Your task to perform on an android device: Open Google Maps and go to "Timeline" Image 0: 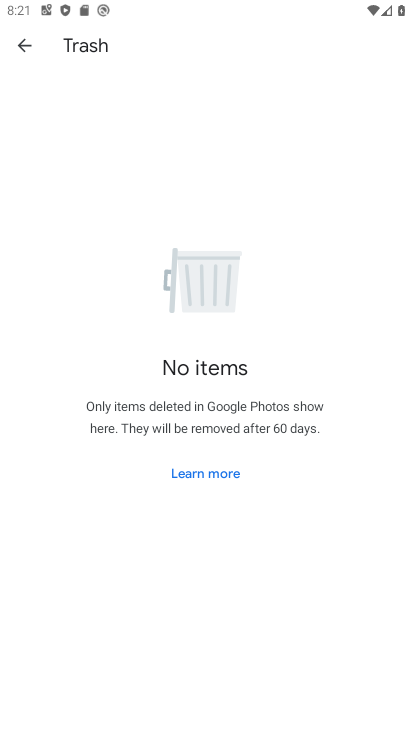
Step 0: press home button
Your task to perform on an android device: Open Google Maps and go to "Timeline" Image 1: 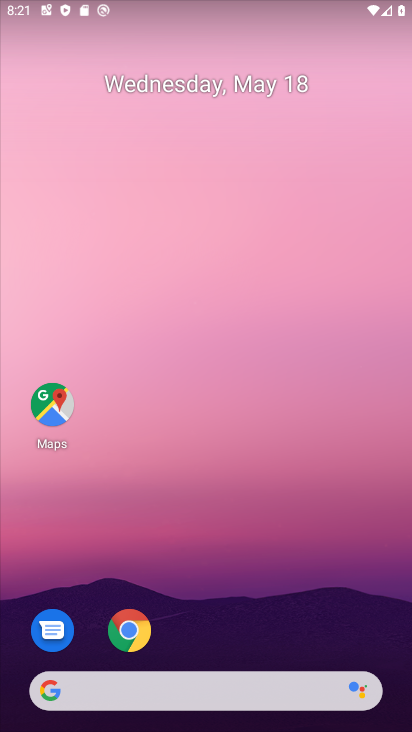
Step 1: click (53, 410)
Your task to perform on an android device: Open Google Maps and go to "Timeline" Image 2: 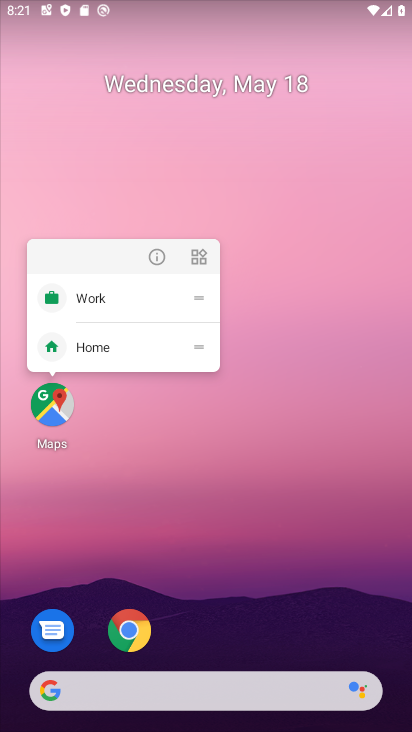
Step 2: click (50, 410)
Your task to perform on an android device: Open Google Maps and go to "Timeline" Image 3: 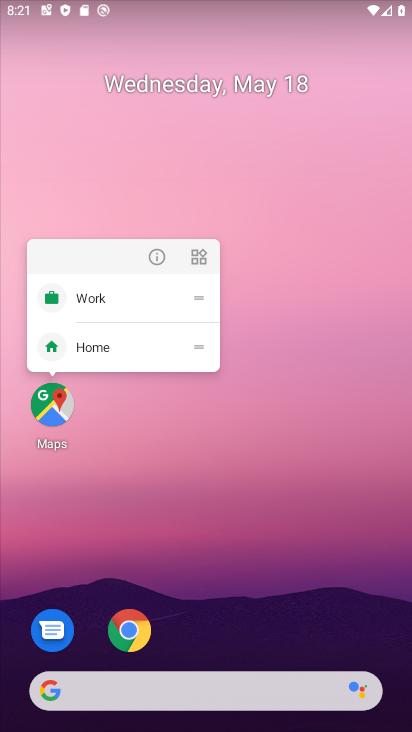
Step 3: click (50, 416)
Your task to perform on an android device: Open Google Maps and go to "Timeline" Image 4: 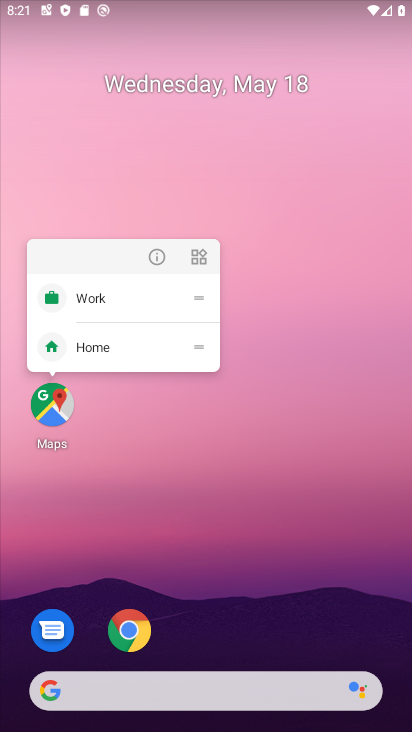
Step 4: click (48, 405)
Your task to perform on an android device: Open Google Maps and go to "Timeline" Image 5: 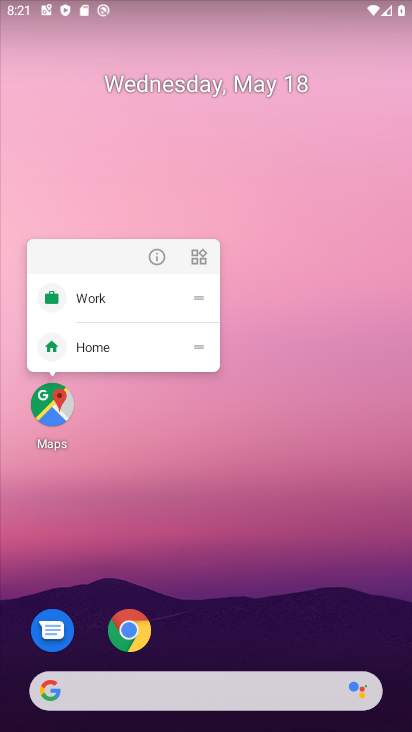
Step 5: click (56, 406)
Your task to perform on an android device: Open Google Maps and go to "Timeline" Image 6: 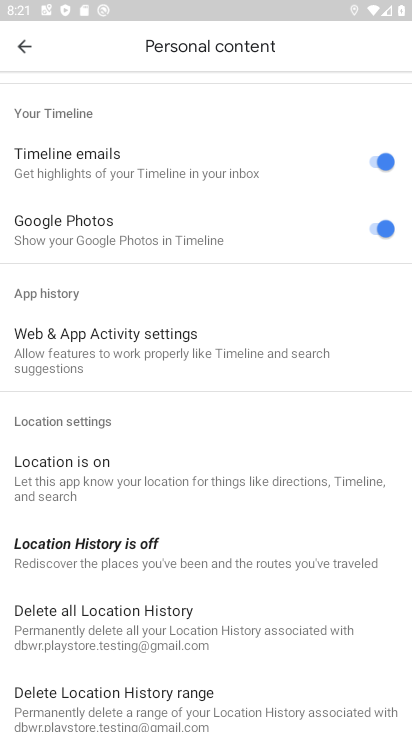
Step 6: click (17, 43)
Your task to perform on an android device: Open Google Maps and go to "Timeline" Image 7: 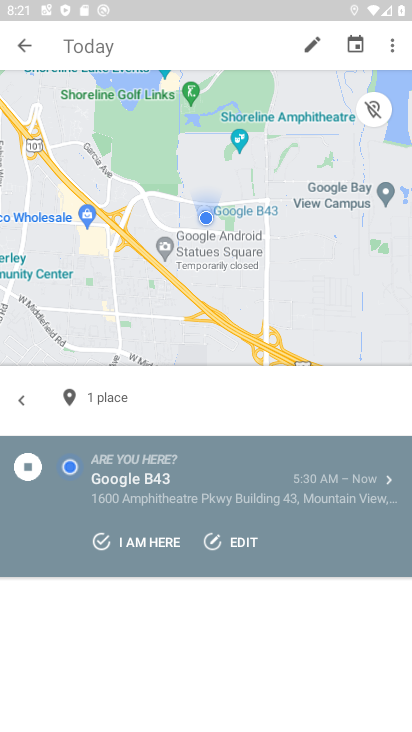
Step 7: click (17, 43)
Your task to perform on an android device: Open Google Maps and go to "Timeline" Image 8: 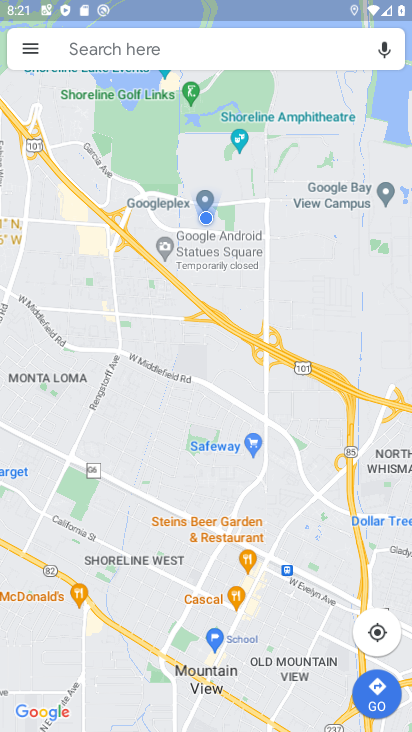
Step 8: click (30, 48)
Your task to perform on an android device: Open Google Maps and go to "Timeline" Image 9: 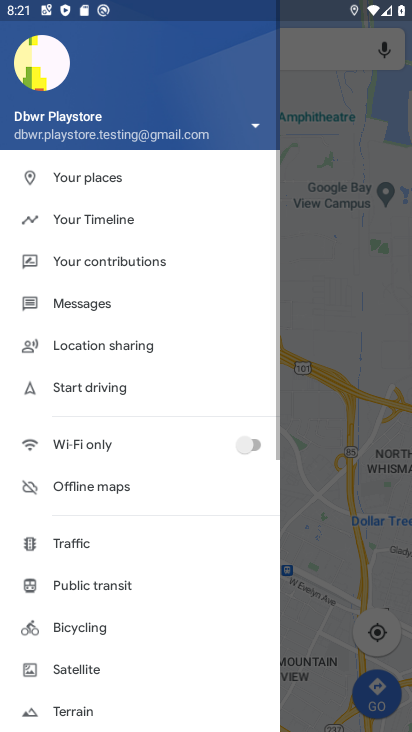
Step 9: click (104, 218)
Your task to perform on an android device: Open Google Maps and go to "Timeline" Image 10: 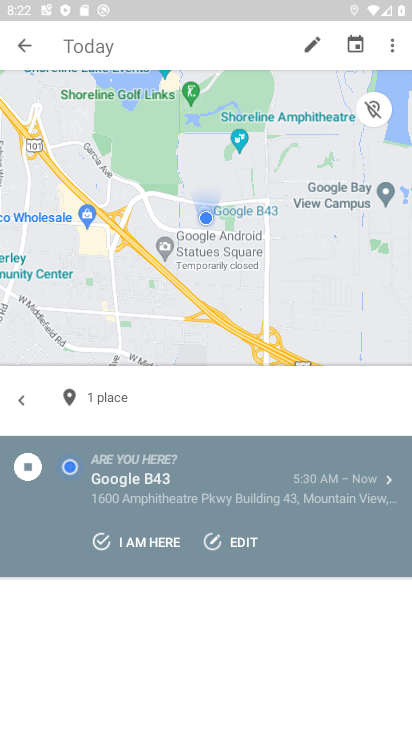
Step 10: task complete